Your task to perform on an android device: Open calendar and show me the third week of next month Image 0: 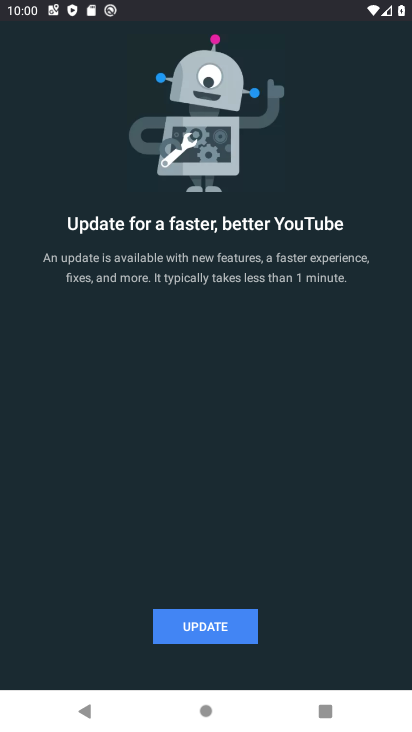
Step 0: press home button
Your task to perform on an android device: Open calendar and show me the third week of next month Image 1: 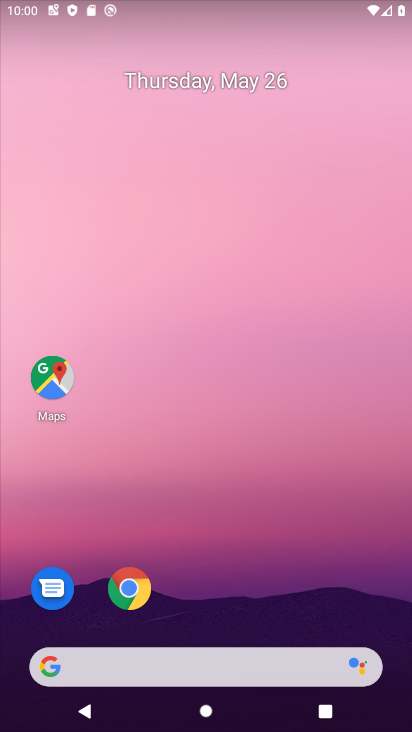
Step 1: drag from (222, 722) to (222, 423)
Your task to perform on an android device: Open calendar and show me the third week of next month Image 2: 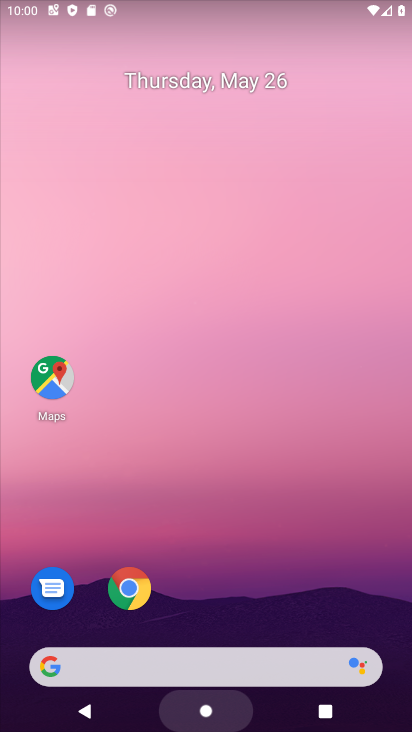
Step 2: drag from (222, 98) to (222, 43)
Your task to perform on an android device: Open calendar and show me the third week of next month Image 3: 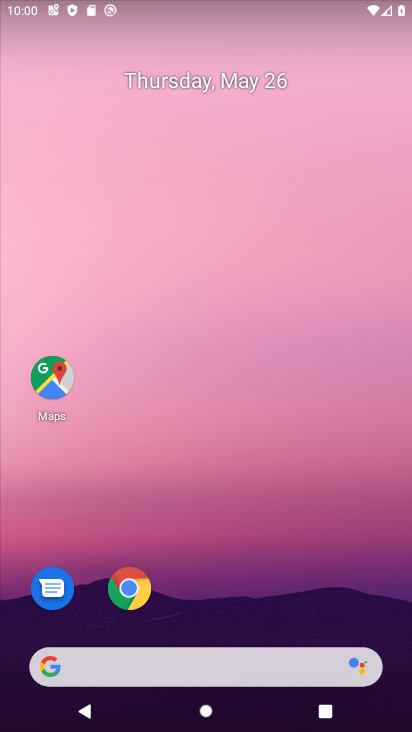
Step 3: drag from (215, 725) to (218, 48)
Your task to perform on an android device: Open calendar and show me the third week of next month Image 4: 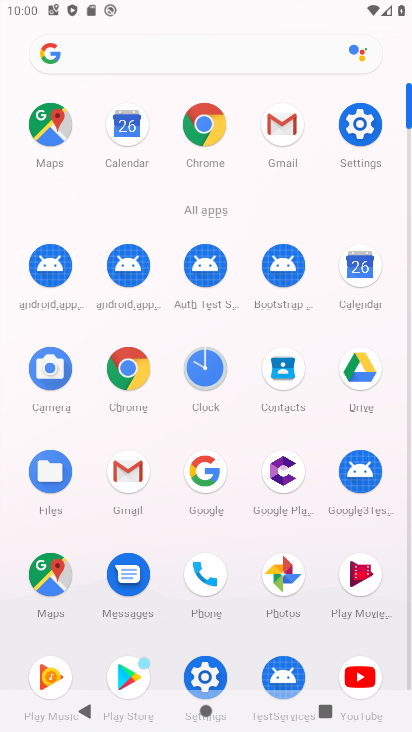
Step 4: click (49, 576)
Your task to perform on an android device: Open calendar and show me the third week of next month Image 5: 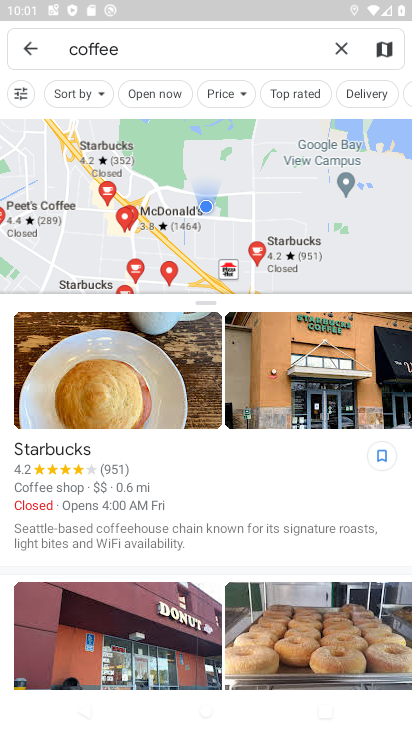
Step 5: press home button
Your task to perform on an android device: Open calendar and show me the third week of next month Image 6: 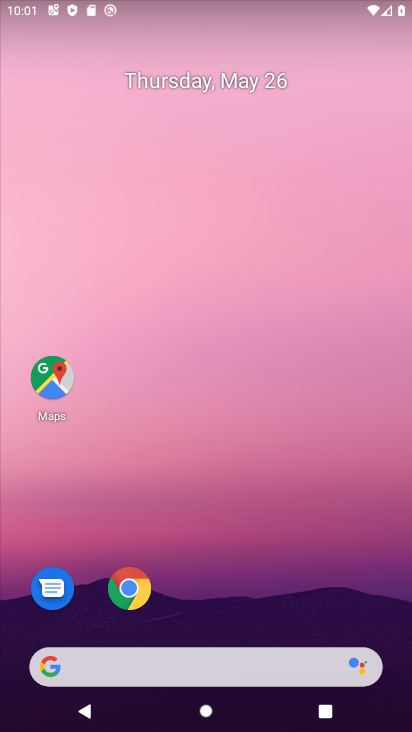
Step 6: drag from (224, 723) to (218, 88)
Your task to perform on an android device: Open calendar and show me the third week of next month Image 7: 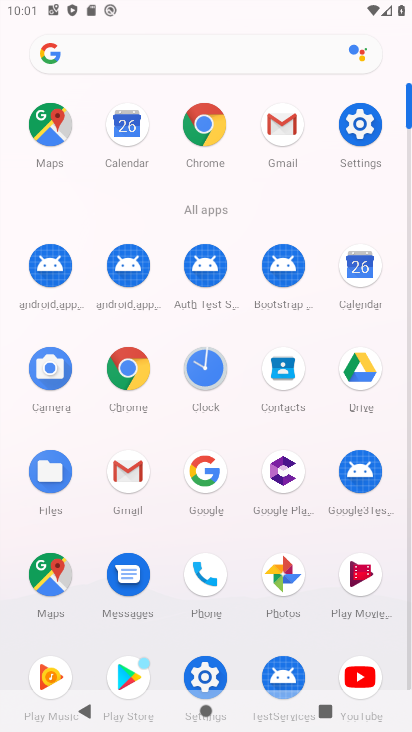
Step 7: click (365, 266)
Your task to perform on an android device: Open calendar and show me the third week of next month Image 8: 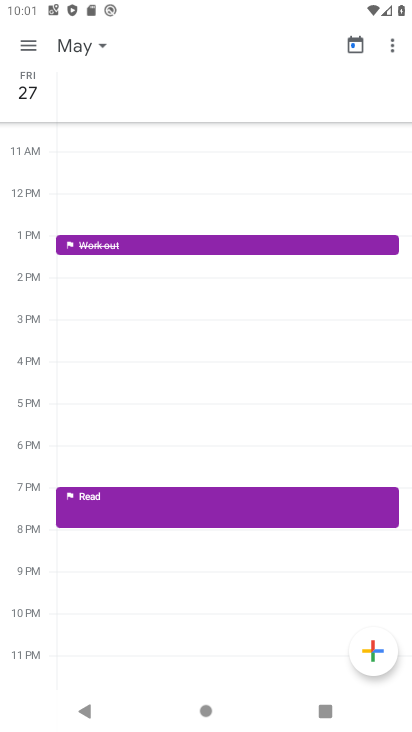
Step 8: click (71, 43)
Your task to perform on an android device: Open calendar and show me the third week of next month Image 9: 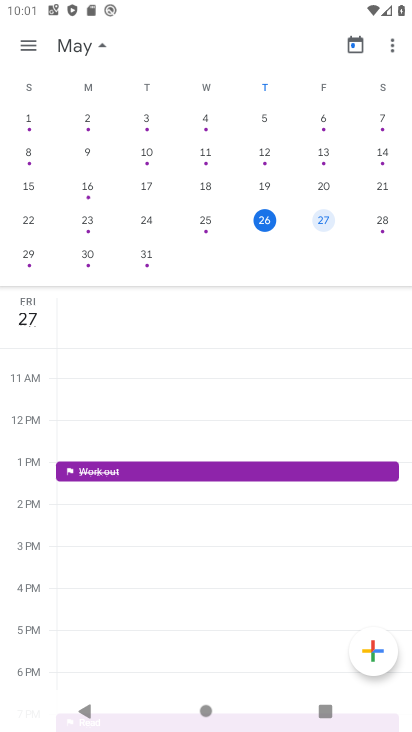
Step 9: drag from (371, 183) to (6, 209)
Your task to perform on an android device: Open calendar and show me the third week of next month Image 10: 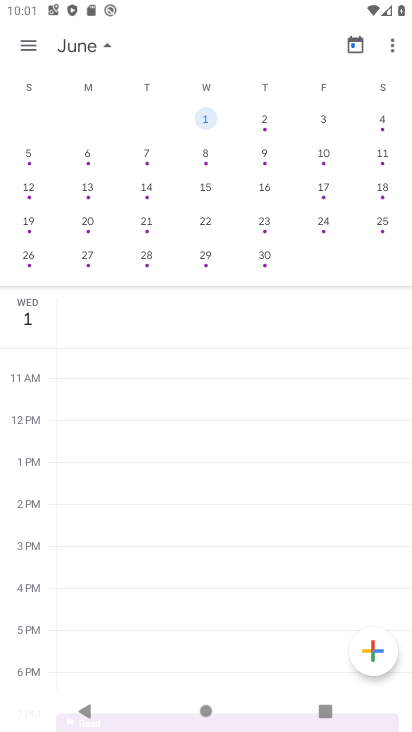
Step 10: click (86, 216)
Your task to perform on an android device: Open calendar and show me the third week of next month Image 11: 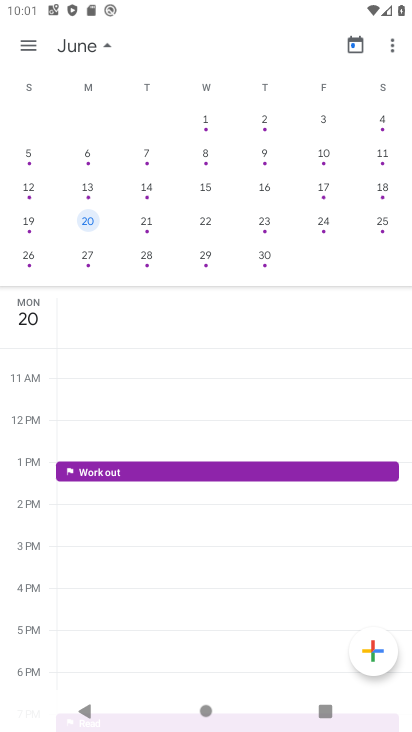
Step 11: click (27, 41)
Your task to perform on an android device: Open calendar and show me the third week of next month Image 12: 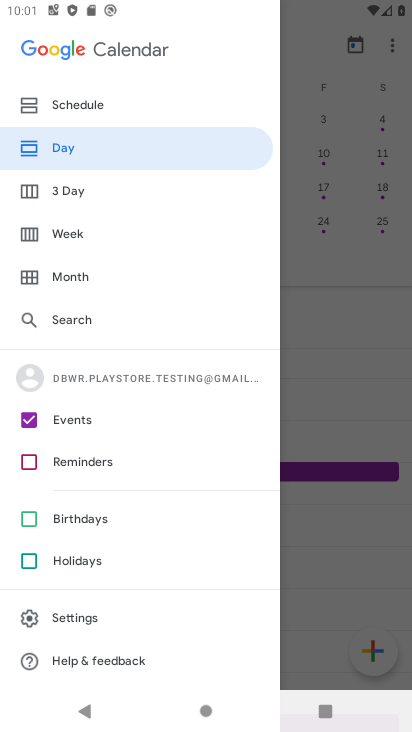
Step 12: click (71, 231)
Your task to perform on an android device: Open calendar and show me the third week of next month Image 13: 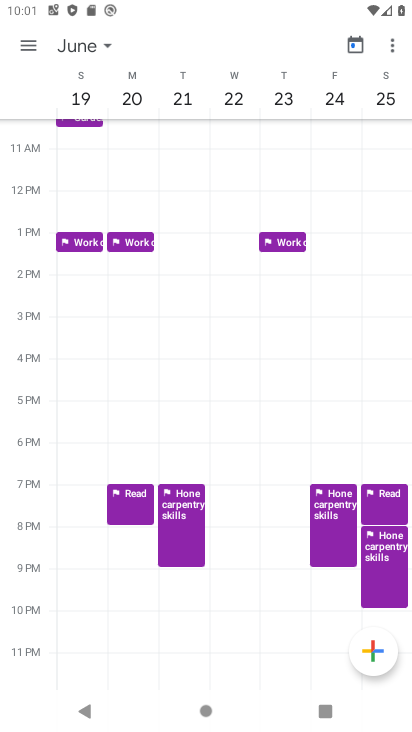
Step 13: task complete